Your task to perform on an android device: Go to battery settings Image 0: 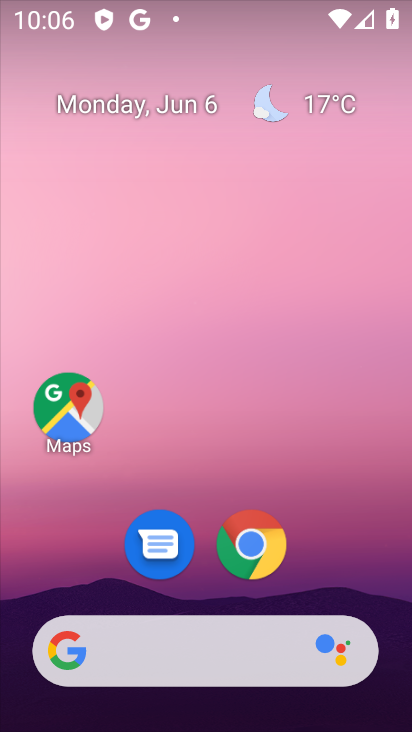
Step 0: drag from (78, 586) to (206, 101)
Your task to perform on an android device: Go to battery settings Image 1: 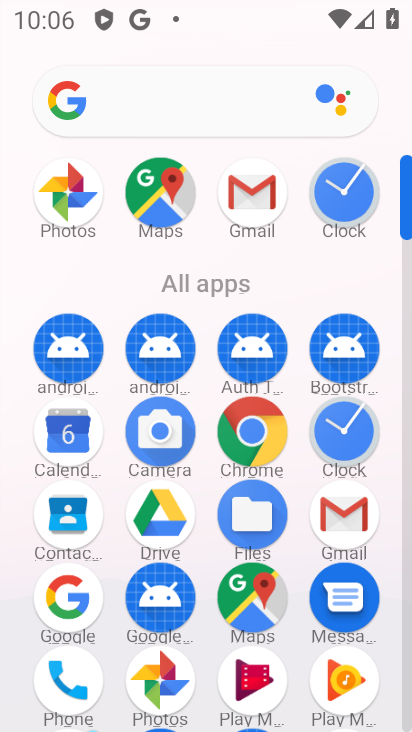
Step 1: drag from (176, 652) to (259, 338)
Your task to perform on an android device: Go to battery settings Image 2: 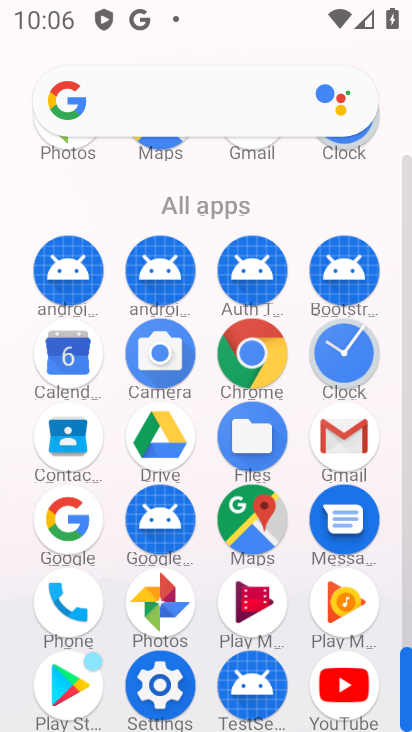
Step 2: click (152, 694)
Your task to perform on an android device: Go to battery settings Image 3: 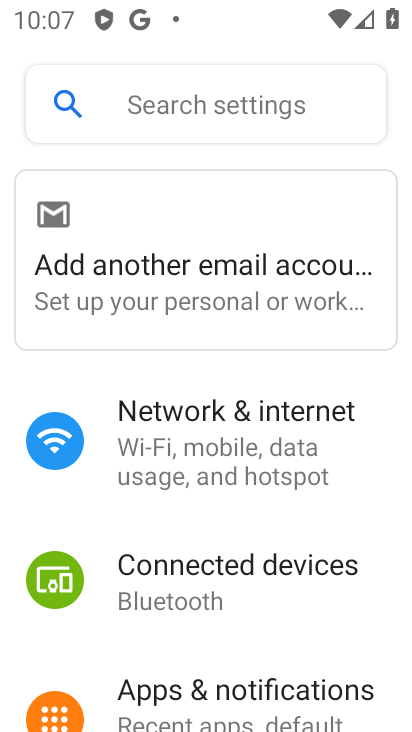
Step 3: drag from (200, 676) to (261, 356)
Your task to perform on an android device: Go to battery settings Image 4: 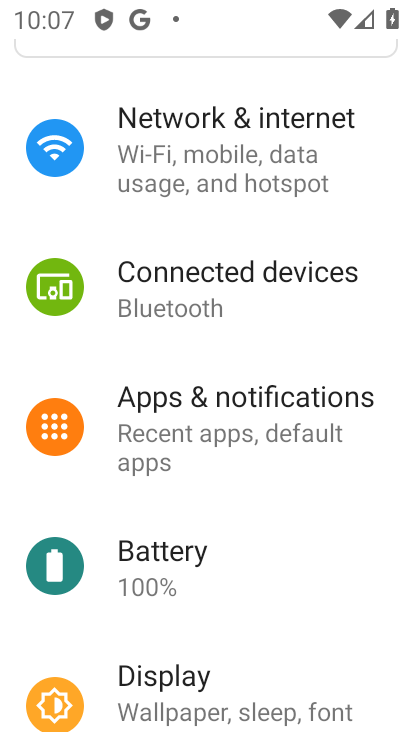
Step 4: click (208, 584)
Your task to perform on an android device: Go to battery settings Image 5: 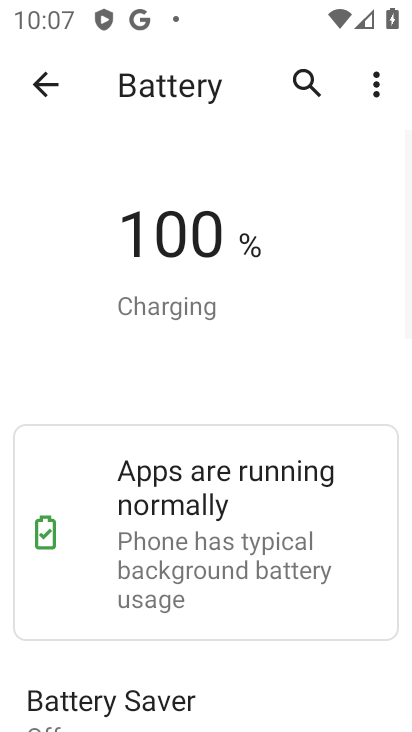
Step 5: task complete